Your task to perform on an android device: see tabs open on other devices in the chrome app Image 0: 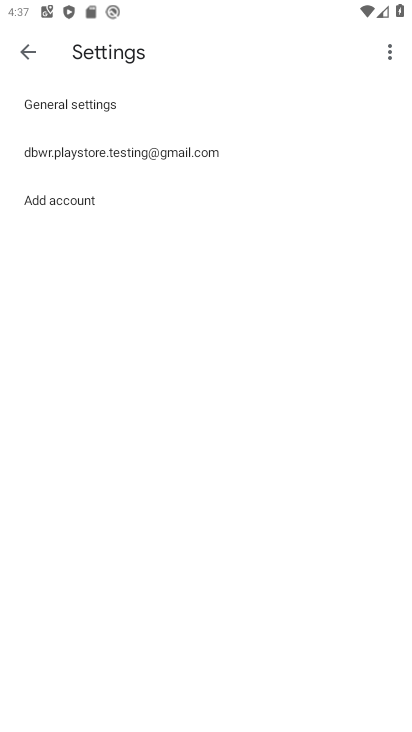
Step 0: press home button
Your task to perform on an android device: see tabs open on other devices in the chrome app Image 1: 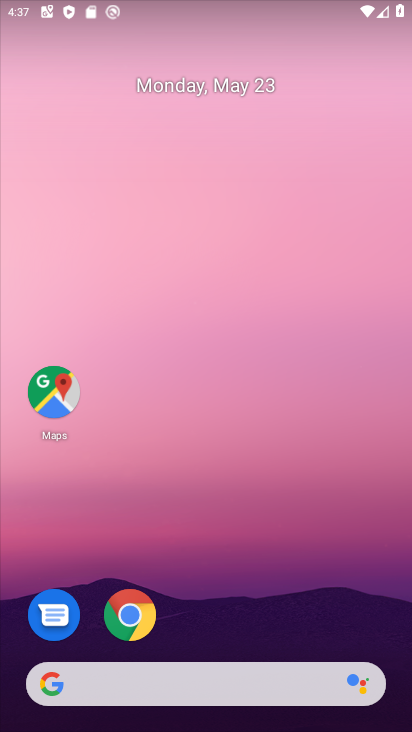
Step 1: click (116, 617)
Your task to perform on an android device: see tabs open on other devices in the chrome app Image 2: 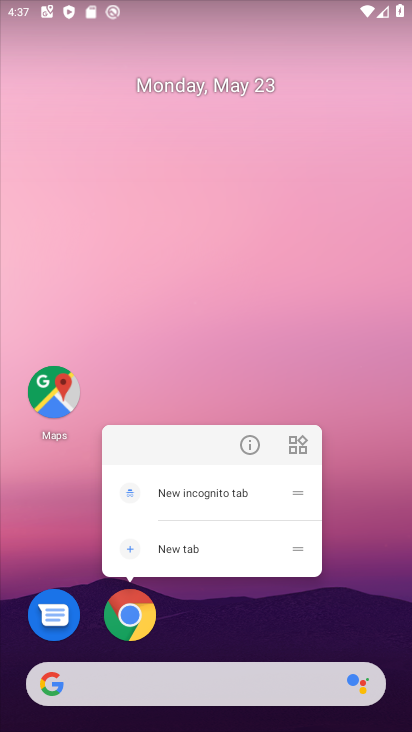
Step 2: click (132, 619)
Your task to perform on an android device: see tabs open on other devices in the chrome app Image 3: 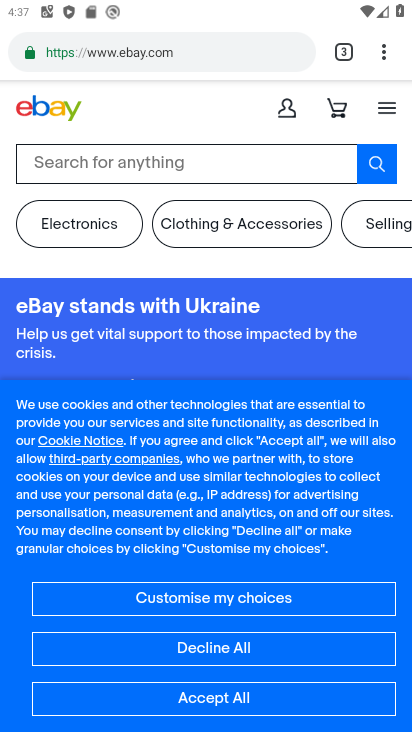
Step 3: task complete